Your task to perform on an android device: toggle show notifications on the lock screen Image 0: 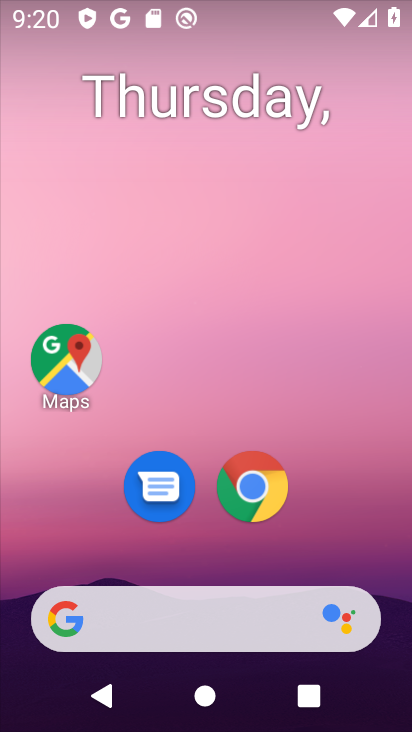
Step 0: drag from (221, 551) to (198, 0)
Your task to perform on an android device: toggle show notifications on the lock screen Image 1: 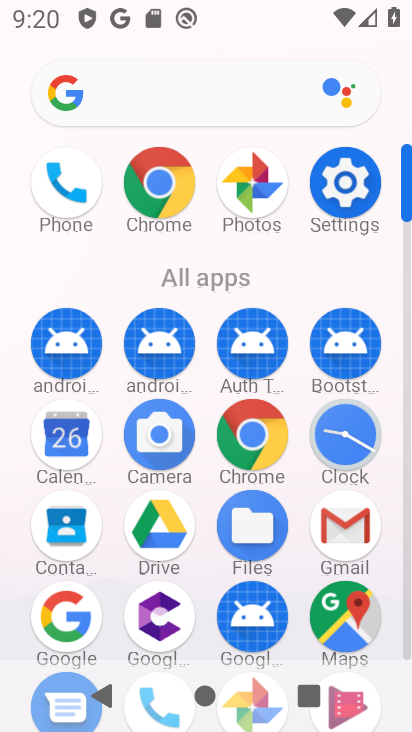
Step 1: click (346, 179)
Your task to perform on an android device: toggle show notifications on the lock screen Image 2: 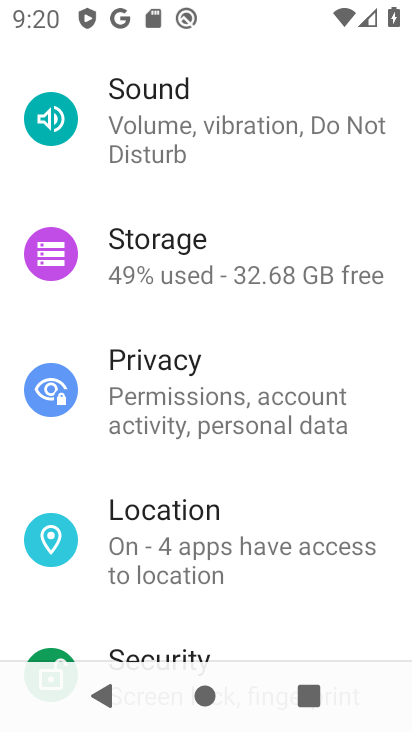
Step 2: drag from (167, 224) to (189, 619)
Your task to perform on an android device: toggle show notifications on the lock screen Image 3: 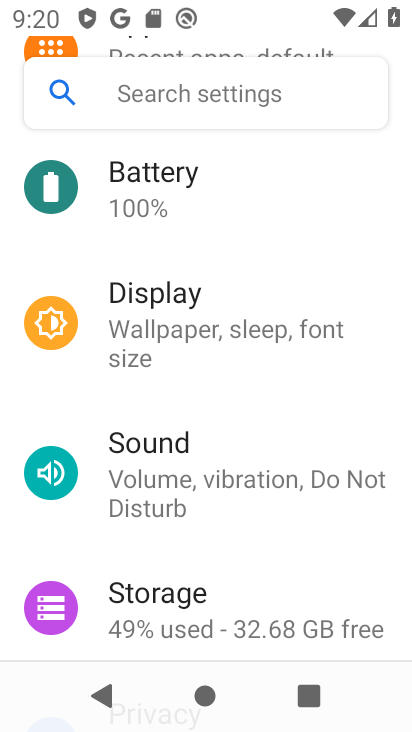
Step 3: drag from (185, 210) to (202, 525)
Your task to perform on an android device: toggle show notifications on the lock screen Image 4: 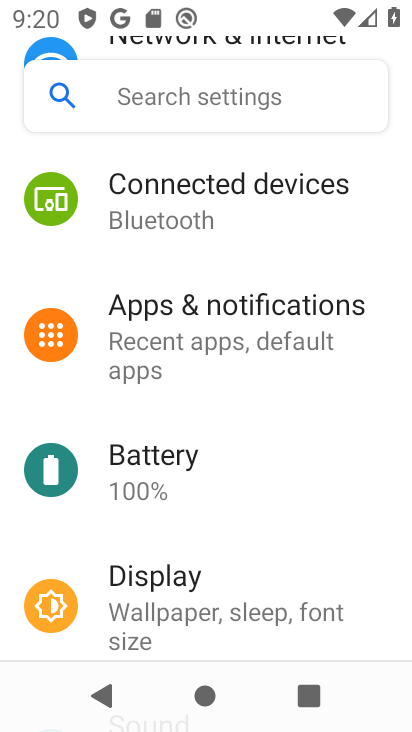
Step 4: click (183, 338)
Your task to perform on an android device: toggle show notifications on the lock screen Image 5: 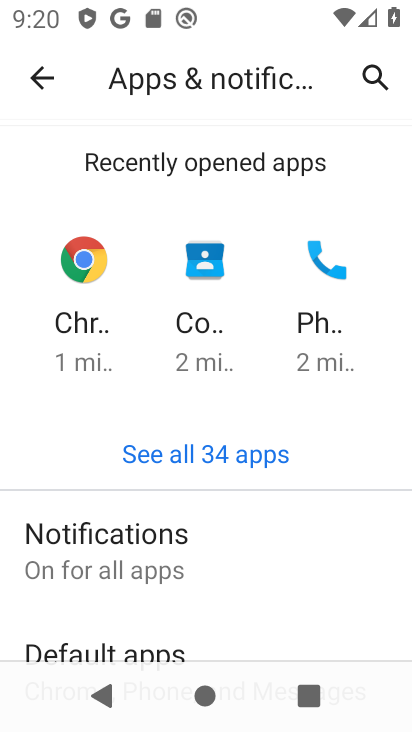
Step 5: click (149, 569)
Your task to perform on an android device: toggle show notifications on the lock screen Image 6: 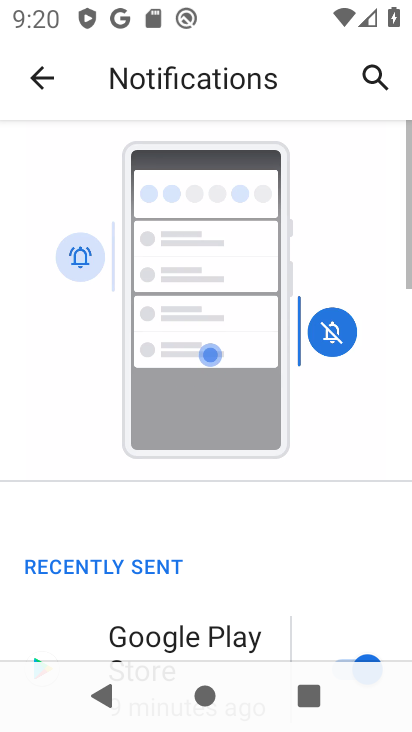
Step 6: drag from (146, 570) to (125, 118)
Your task to perform on an android device: toggle show notifications on the lock screen Image 7: 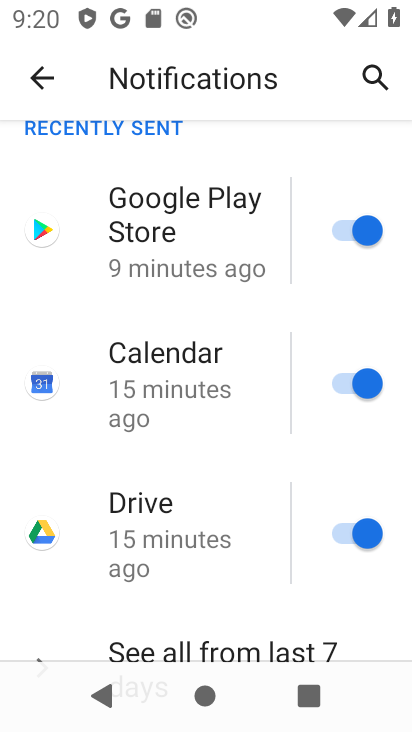
Step 7: drag from (62, 566) to (76, 57)
Your task to perform on an android device: toggle show notifications on the lock screen Image 8: 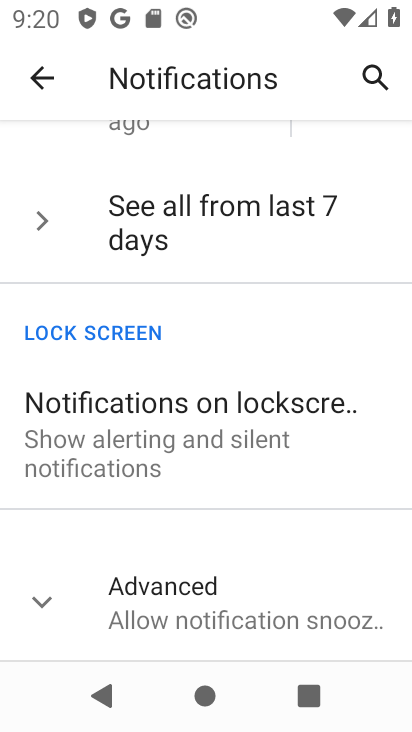
Step 8: click (142, 399)
Your task to perform on an android device: toggle show notifications on the lock screen Image 9: 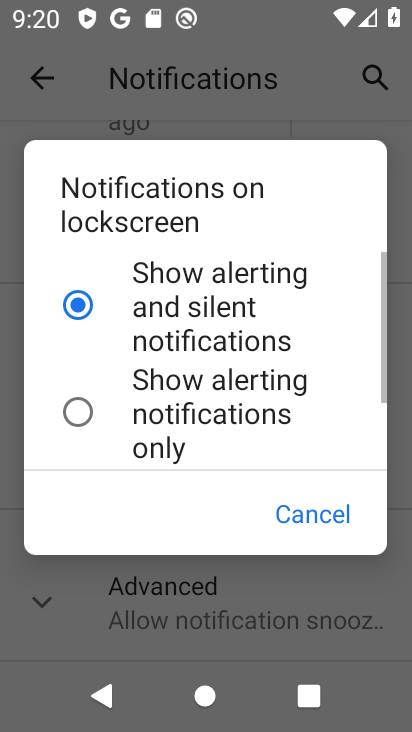
Step 9: drag from (164, 413) to (136, 335)
Your task to perform on an android device: toggle show notifications on the lock screen Image 10: 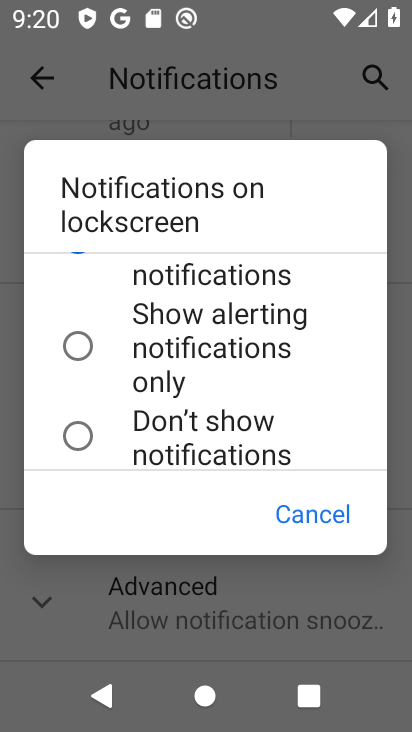
Step 10: click (136, 356)
Your task to perform on an android device: toggle show notifications on the lock screen Image 11: 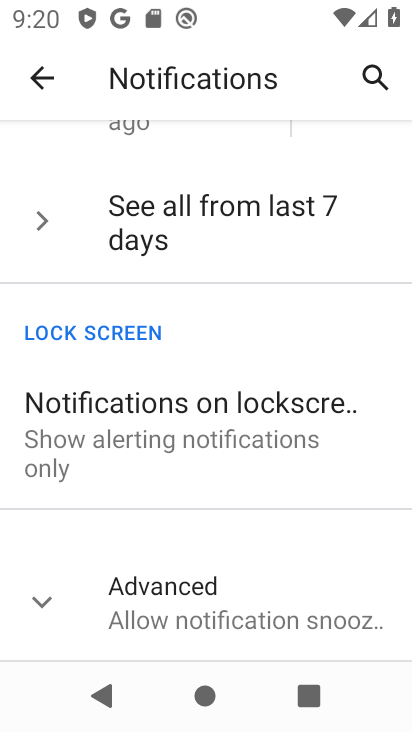
Step 11: task complete